Your task to perform on an android device: empty trash in google photos Image 0: 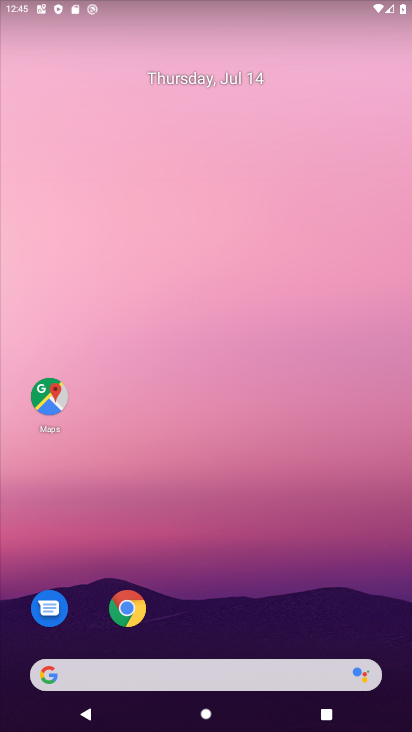
Step 0: drag from (208, 615) to (330, 178)
Your task to perform on an android device: empty trash in google photos Image 1: 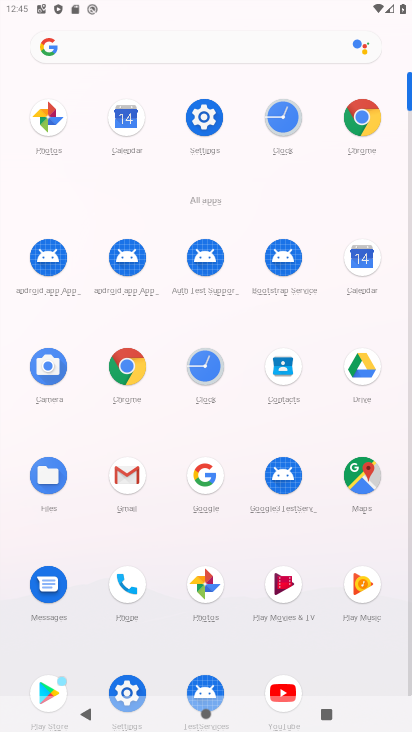
Step 1: click (198, 579)
Your task to perform on an android device: empty trash in google photos Image 2: 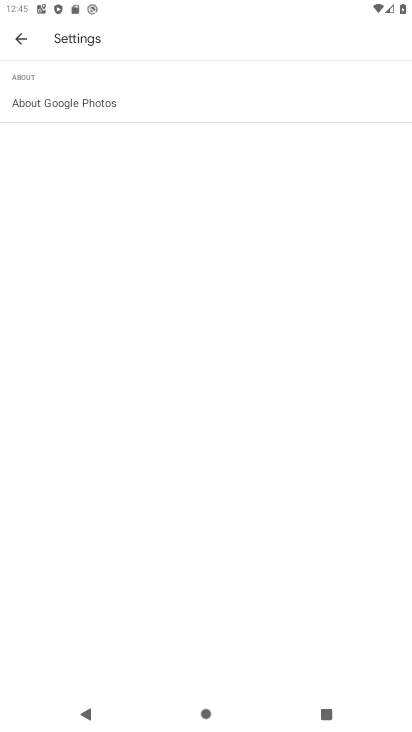
Step 2: drag from (215, 572) to (224, 500)
Your task to perform on an android device: empty trash in google photos Image 3: 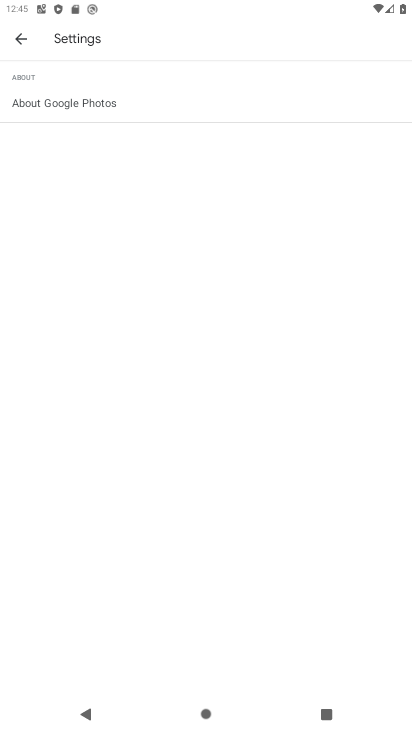
Step 3: click (20, 37)
Your task to perform on an android device: empty trash in google photos Image 4: 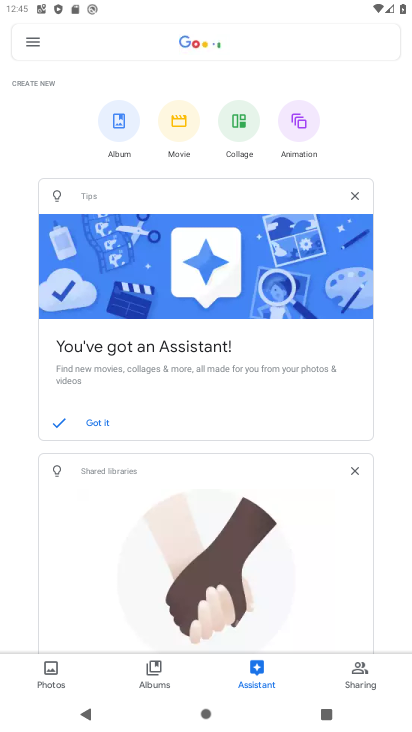
Step 4: click (29, 46)
Your task to perform on an android device: empty trash in google photos Image 5: 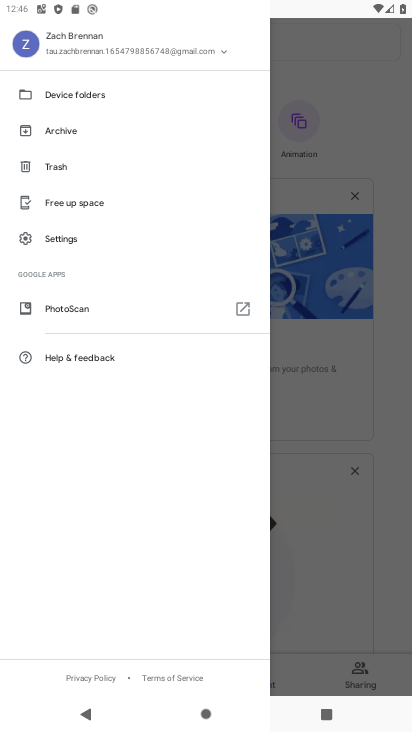
Step 5: click (96, 157)
Your task to perform on an android device: empty trash in google photos Image 6: 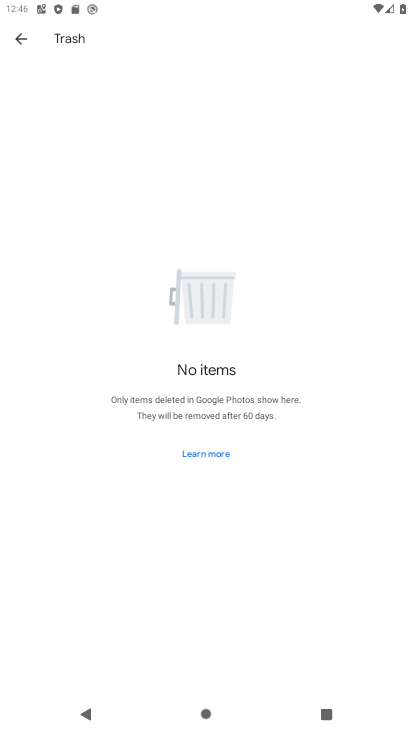
Step 6: task complete